Your task to perform on an android device: change notifications settings Image 0: 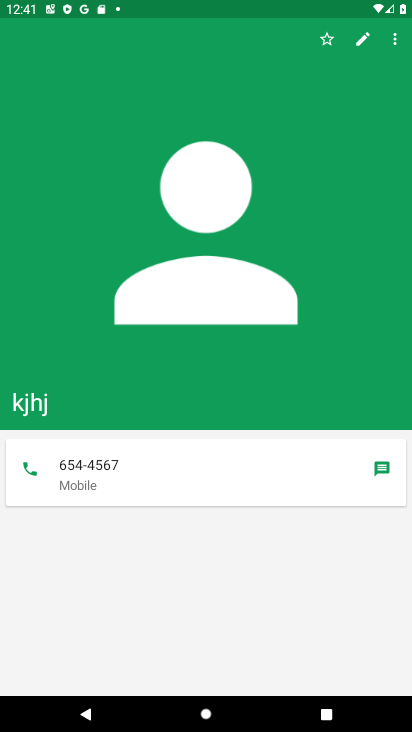
Step 0: press home button
Your task to perform on an android device: change notifications settings Image 1: 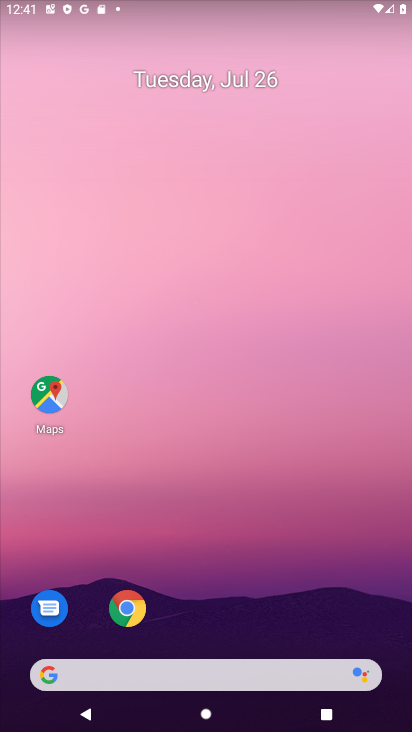
Step 1: drag from (198, 609) to (209, 1)
Your task to perform on an android device: change notifications settings Image 2: 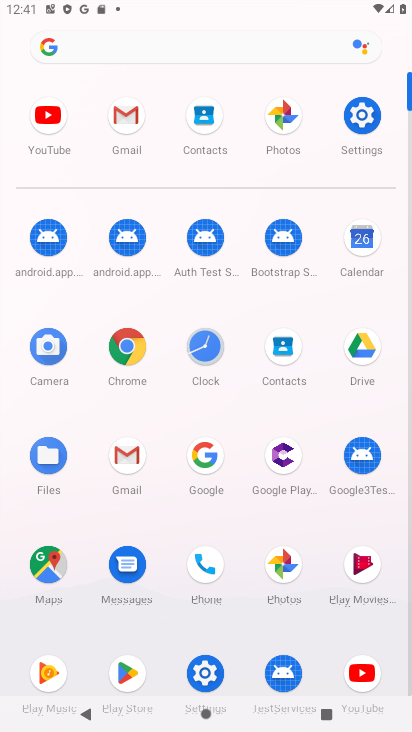
Step 2: click (366, 158)
Your task to perform on an android device: change notifications settings Image 3: 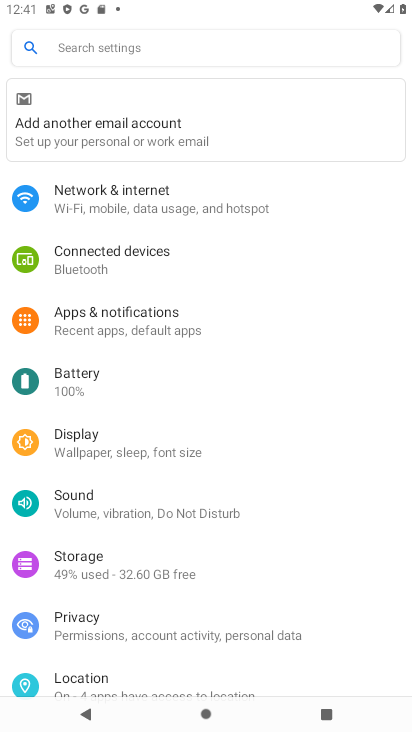
Step 3: click (166, 325)
Your task to perform on an android device: change notifications settings Image 4: 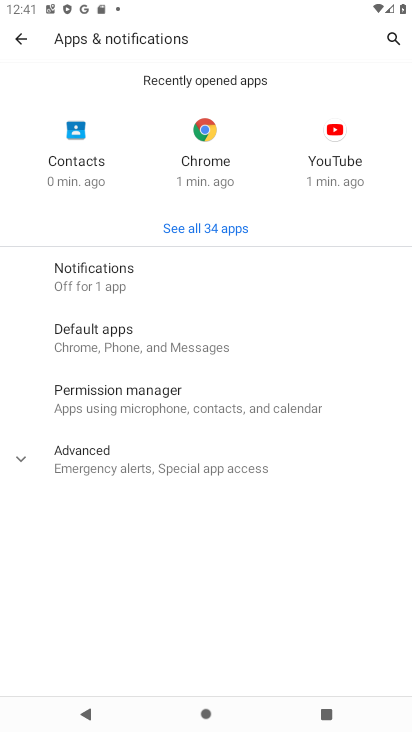
Step 4: click (149, 299)
Your task to perform on an android device: change notifications settings Image 5: 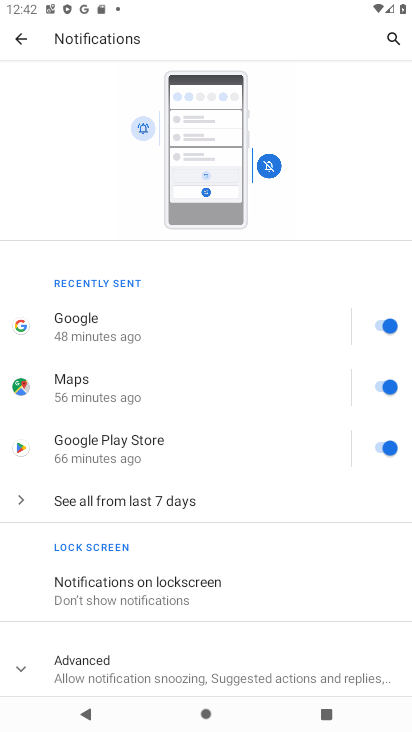
Step 5: click (395, 319)
Your task to perform on an android device: change notifications settings Image 6: 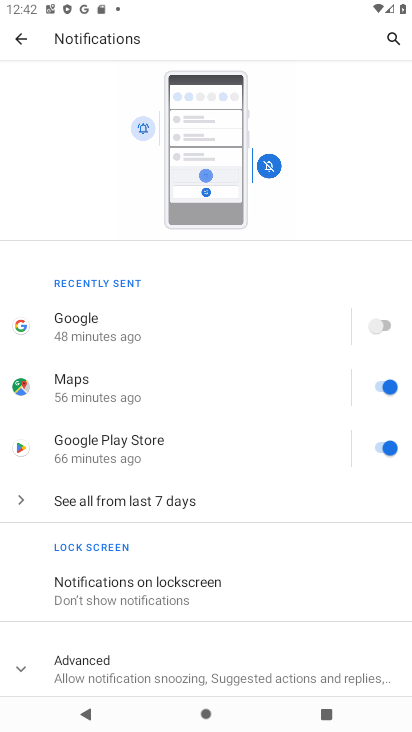
Step 6: click (389, 380)
Your task to perform on an android device: change notifications settings Image 7: 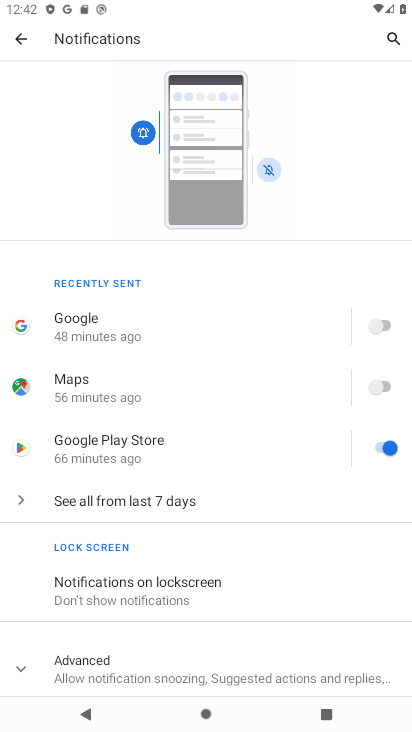
Step 7: click (396, 444)
Your task to perform on an android device: change notifications settings Image 8: 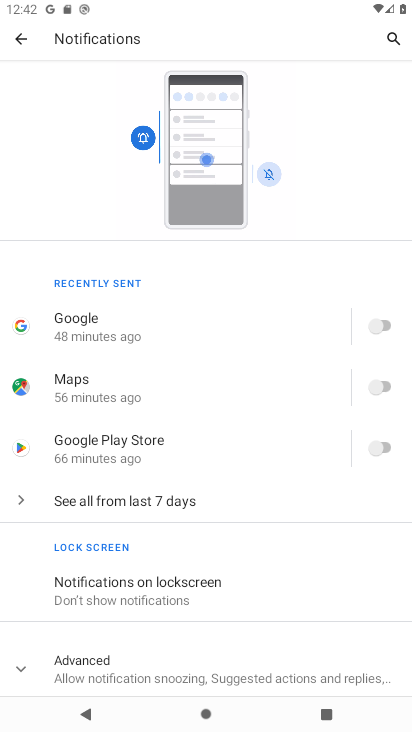
Step 8: click (237, 653)
Your task to perform on an android device: change notifications settings Image 9: 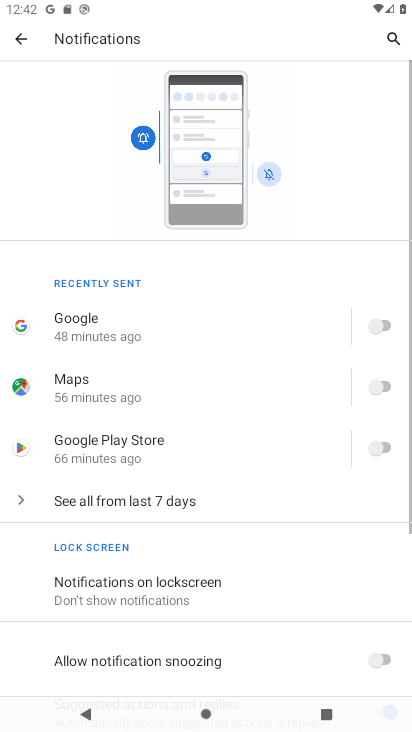
Step 9: drag from (237, 653) to (250, 199)
Your task to perform on an android device: change notifications settings Image 10: 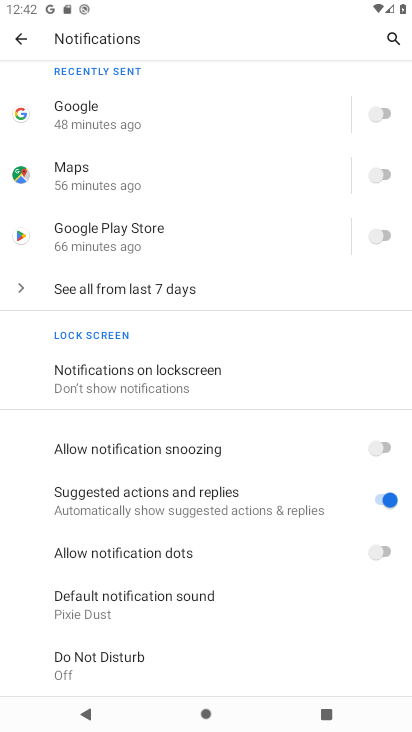
Step 10: click (383, 552)
Your task to perform on an android device: change notifications settings Image 11: 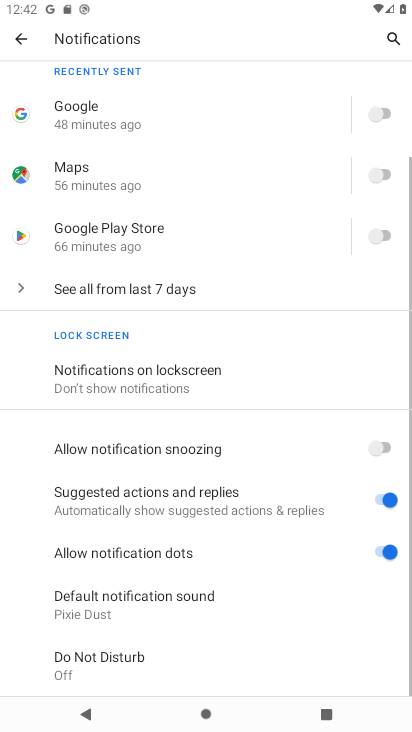
Step 11: click (390, 503)
Your task to perform on an android device: change notifications settings Image 12: 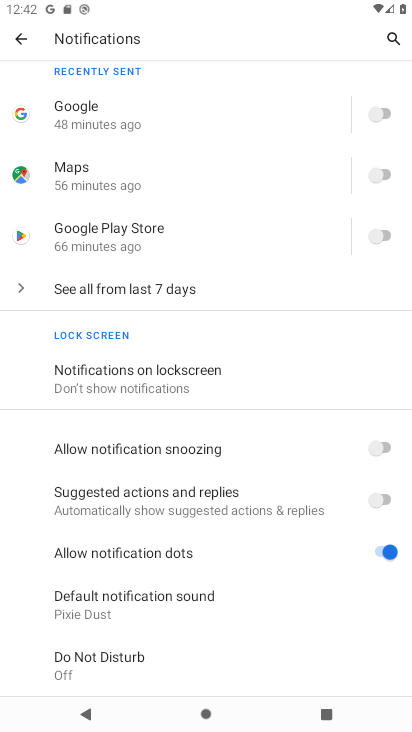
Step 12: click (387, 558)
Your task to perform on an android device: change notifications settings Image 13: 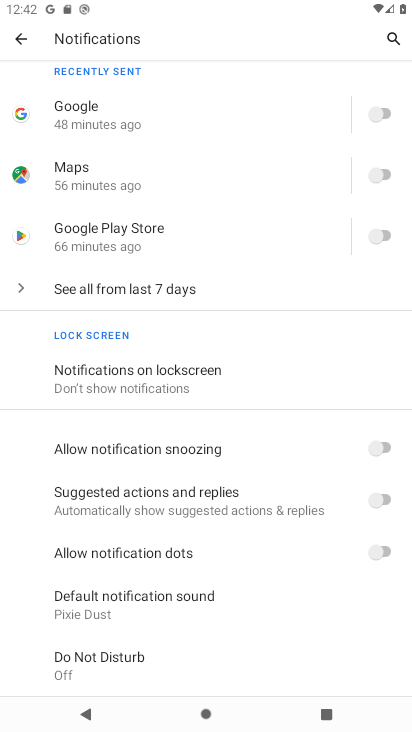
Step 13: task complete